Your task to perform on an android device: toggle translation in the chrome app Image 0: 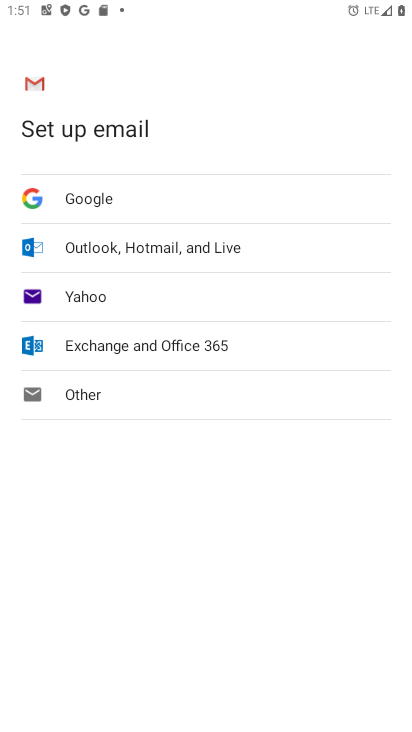
Step 0: press home button
Your task to perform on an android device: toggle translation in the chrome app Image 1: 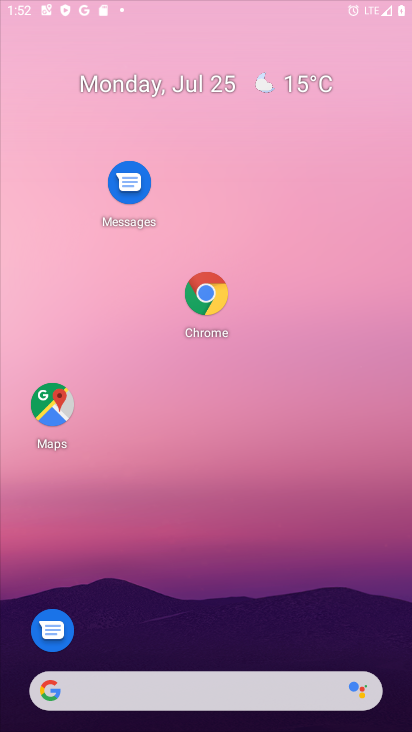
Step 1: drag from (271, 629) to (372, 25)
Your task to perform on an android device: toggle translation in the chrome app Image 2: 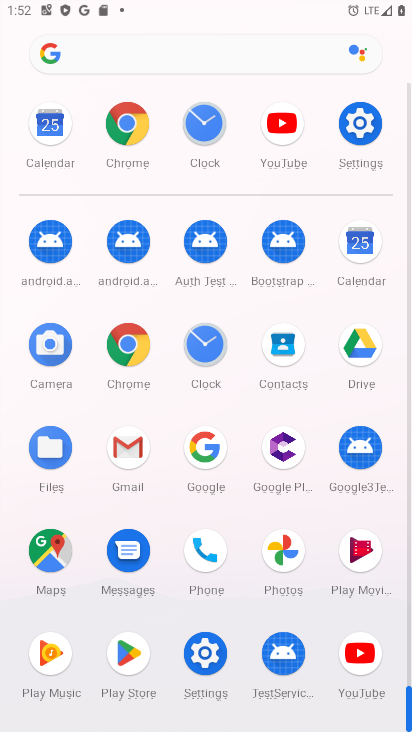
Step 2: click (133, 326)
Your task to perform on an android device: toggle translation in the chrome app Image 3: 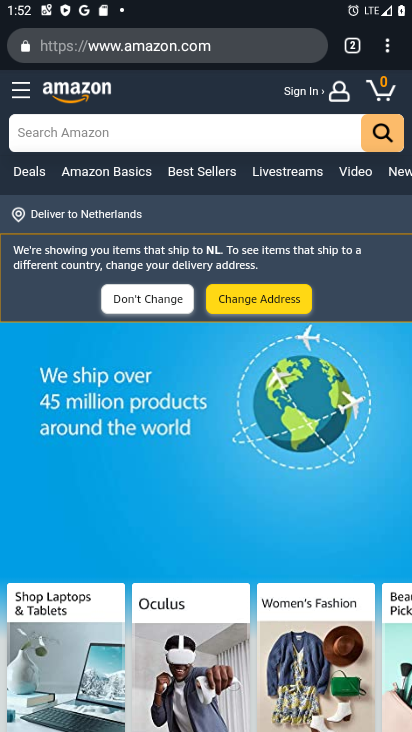
Step 3: drag from (384, 51) to (240, 598)
Your task to perform on an android device: toggle translation in the chrome app Image 4: 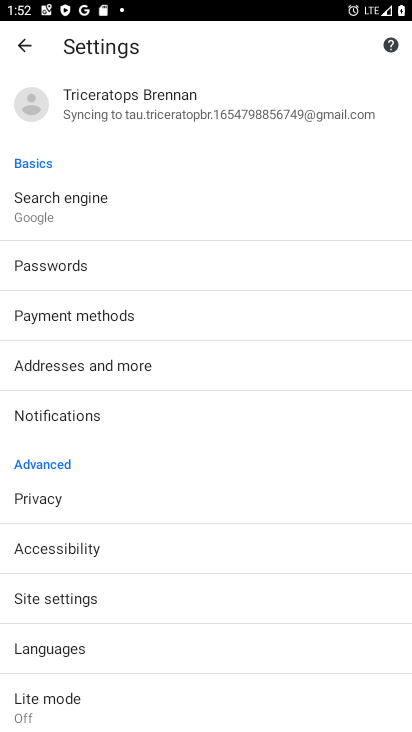
Step 4: click (58, 652)
Your task to perform on an android device: toggle translation in the chrome app Image 5: 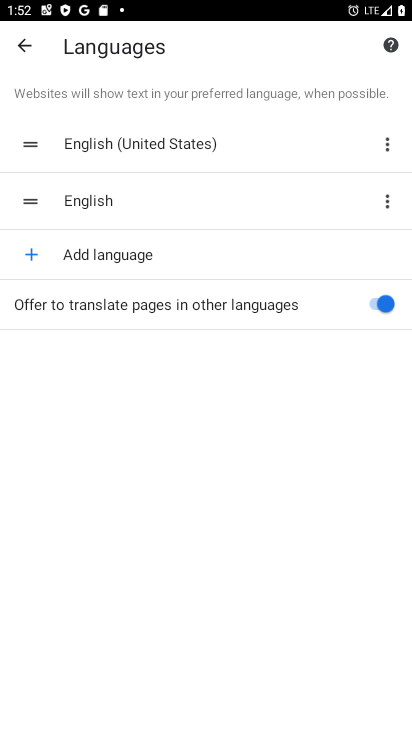
Step 5: click (273, 291)
Your task to perform on an android device: toggle translation in the chrome app Image 6: 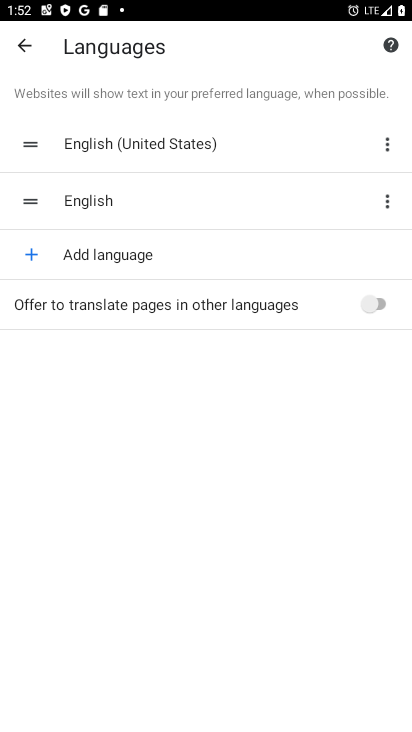
Step 6: task complete